Your task to perform on an android device: Play the last video I watched on Youtube Image 0: 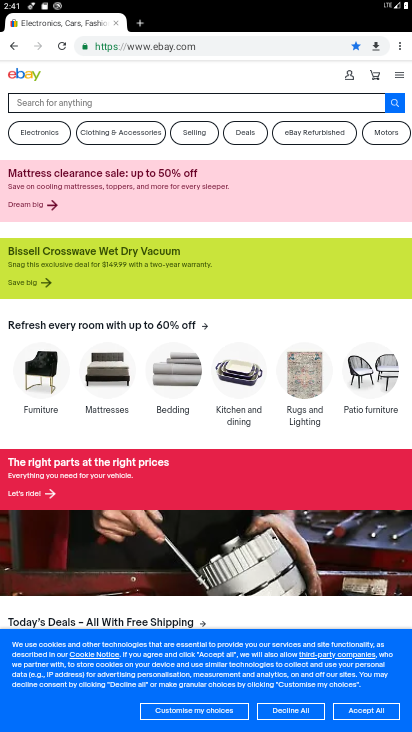
Step 0: press home button
Your task to perform on an android device: Play the last video I watched on Youtube Image 1: 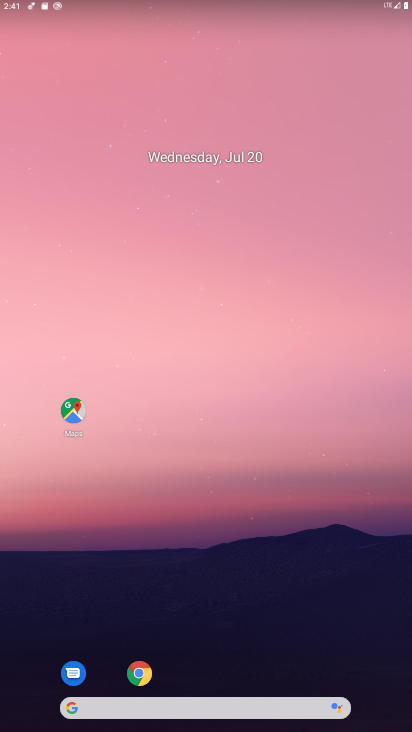
Step 1: drag from (212, 668) to (235, 277)
Your task to perform on an android device: Play the last video I watched on Youtube Image 2: 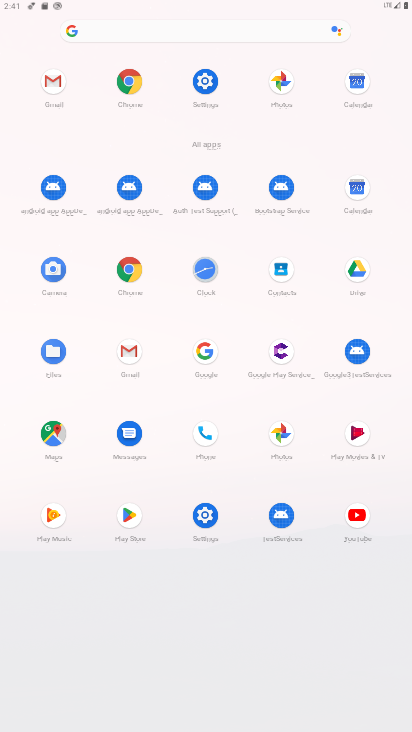
Step 2: click (360, 522)
Your task to perform on an android device: Play the last video I watched on Youtube Image 3: 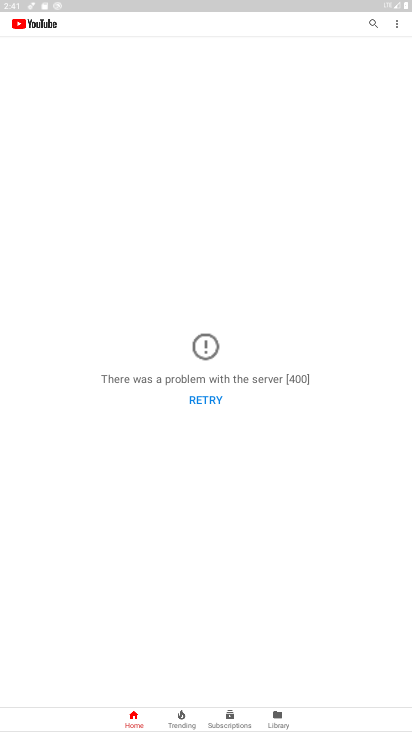
Step 3: click (207, 398)
Your task to perform on an android device: Play the last video I watched on Youtube Image 4: 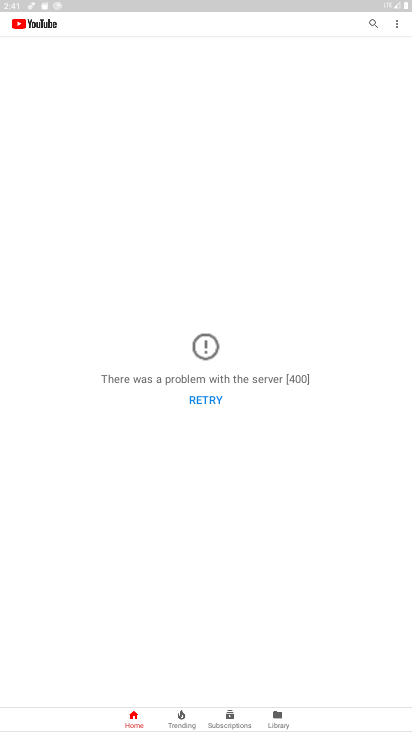
Step 4: click (279, 719)
Your task to perform on an android device: Play the last video I watched on Youtube Image 5: 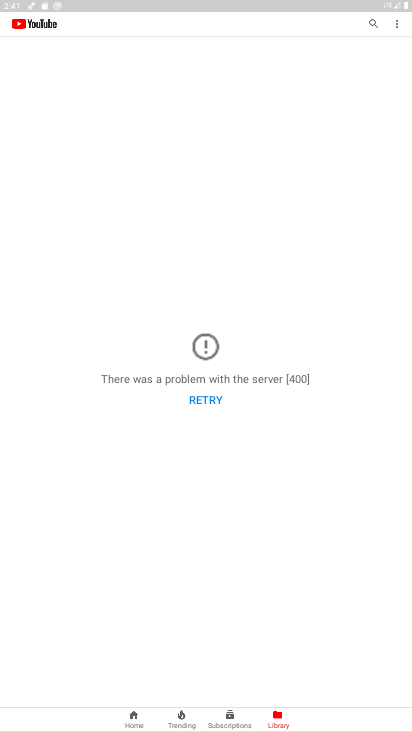
Step 5: click (201, 401)
Your task to perform on an android device: Play the last video I watched on Youtube Image 6: 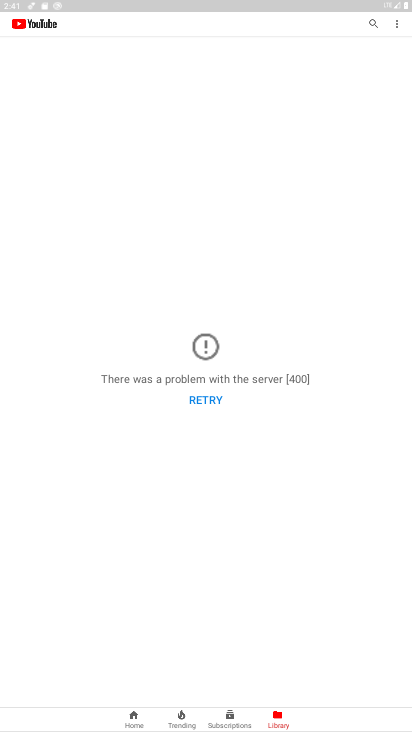
Step 6: click (203, 401)
Your task to perform on an android device: Play the last video I watched on Youtube Image 7: 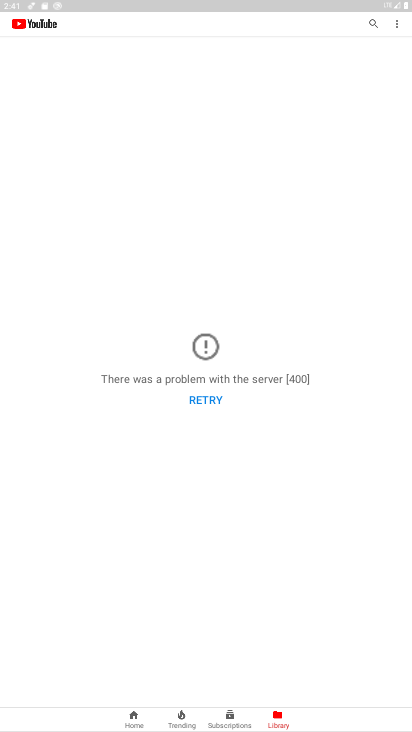
Step 7: click (206, 400)
Your task to perform on an android device: Play the last video I watched on Youtube Image 8: 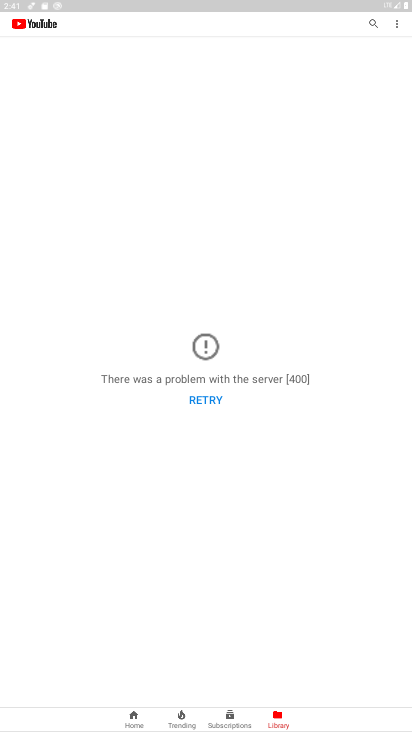
Step 8: click (206, 400)
Your task to perform on an android device: Play the last video I watched on Youtube Image 9: 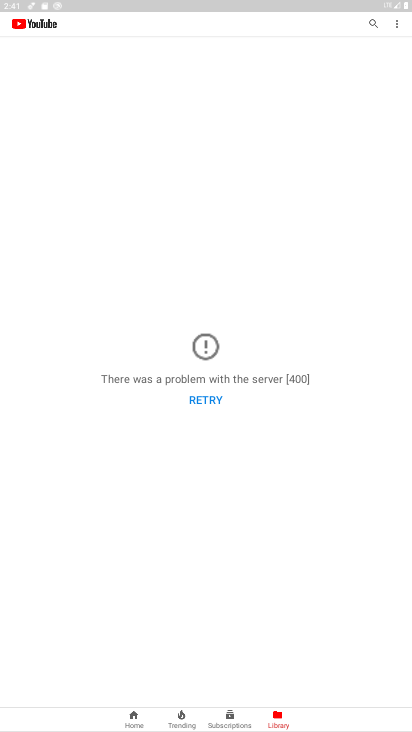
Step 9: click (208, 401)
Your task to perform on an android device: Play the last video I watched on Youtube Image 10: 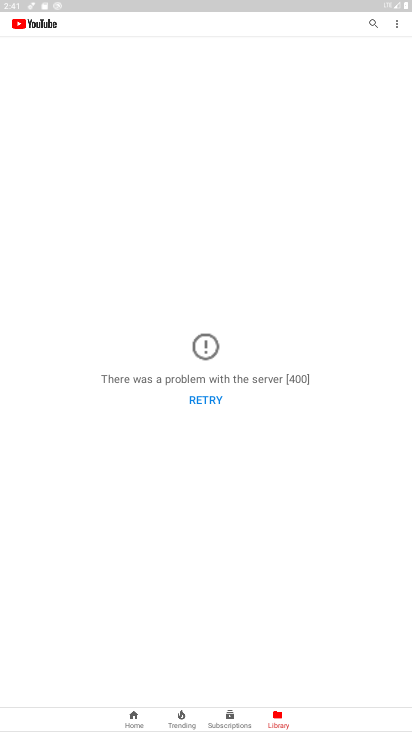
Step 10: task complete